Your task to perform on an android device: check google app version Image 0: 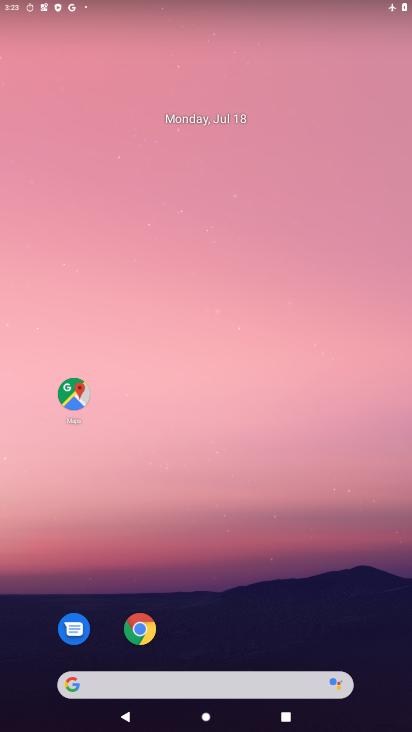
Step 0: drag from (192, 660) to (122, 177)
Your task to perform on an android device: check google app version Image 1: 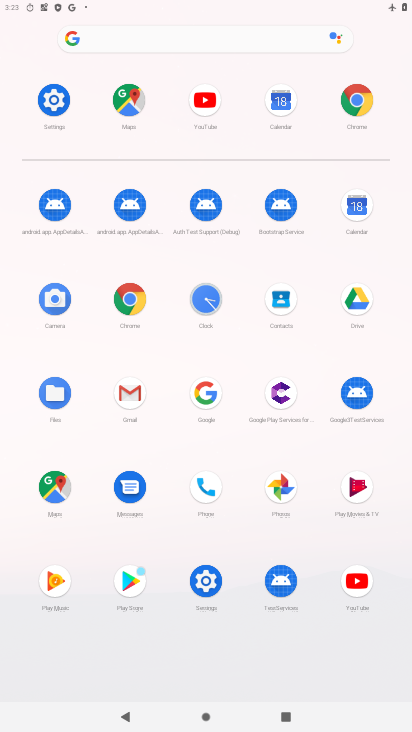
Step 1: click (195, 397)
Your task to perform on an android device: check google app version Image 2: 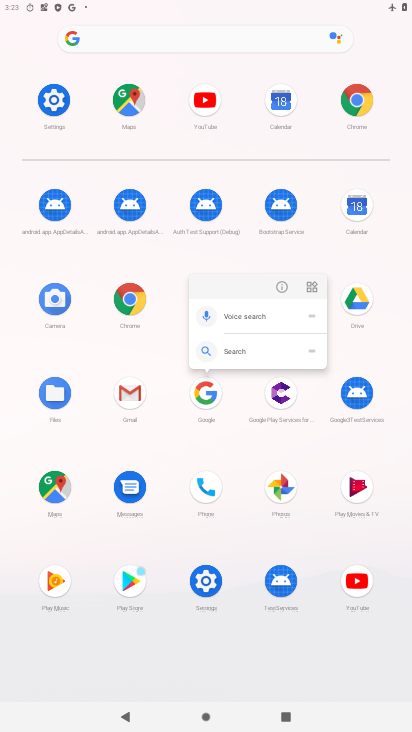
Step 2: click (277, 283)
Your task to perform on an android device: check google app version Image 3: 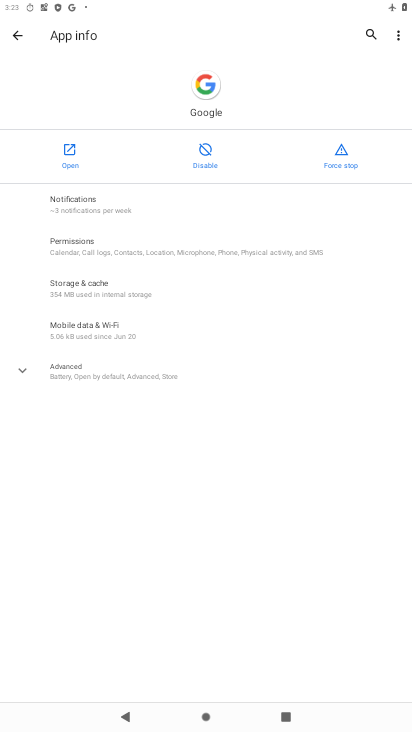
Step 3: click (66, 369)
Your task to perform on an android device: check google app version Image 4: 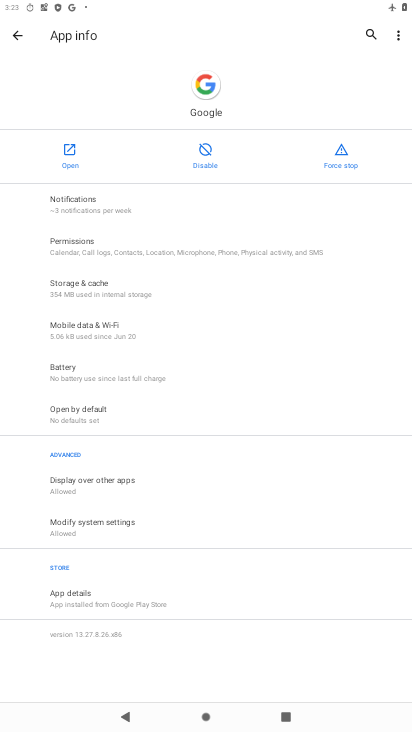
Step 4: task complete